Your task to perform on an android device: Open Google Chrome and open the bookmarks view Image 0: 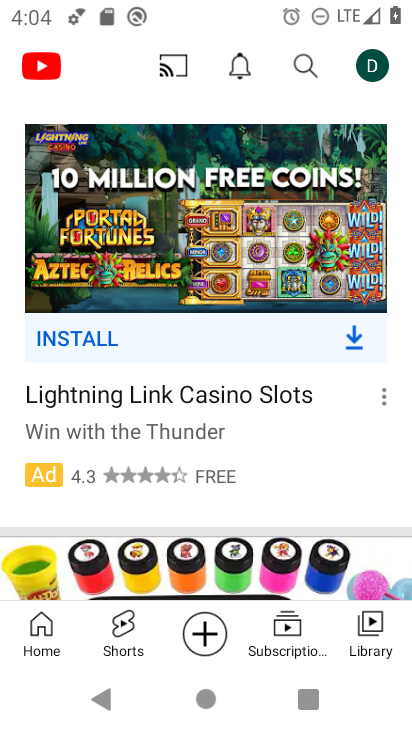
Step 0: press home button
Your task to perform on an android device: Open Google Chrome and open the bookmarks view Image 1: 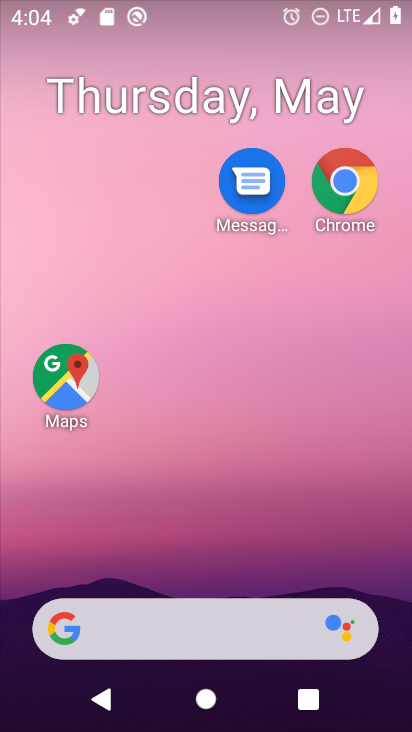
Step 1: drag from (215, 617) to (281, 48)
Your task to perform on an android device: Open Google Chrome and open the bookmarks view Image 2: 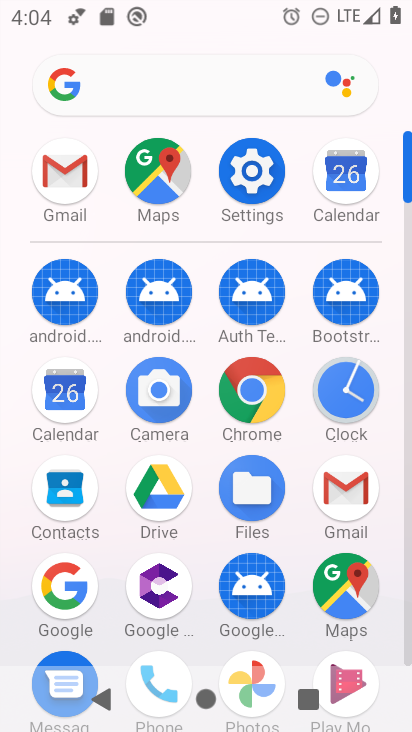
Step 2: click (250, 389)
Your task to perform on an android device: Open Google Chrome and open the bookmarks view Image 3: 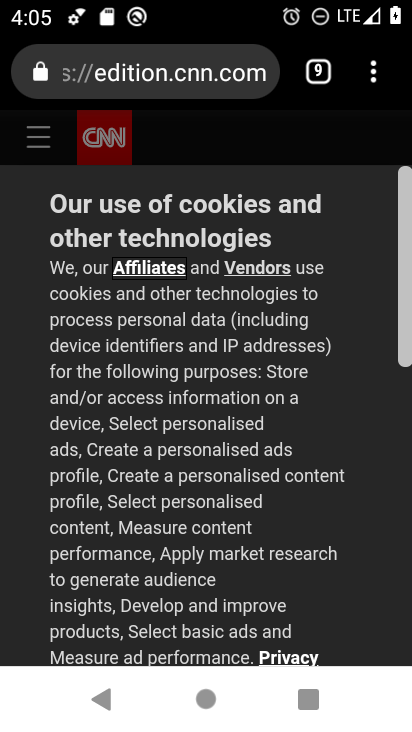
Step 3: task complete